Your task to perform on an android device: Do I have any events this weekend? Image 0: 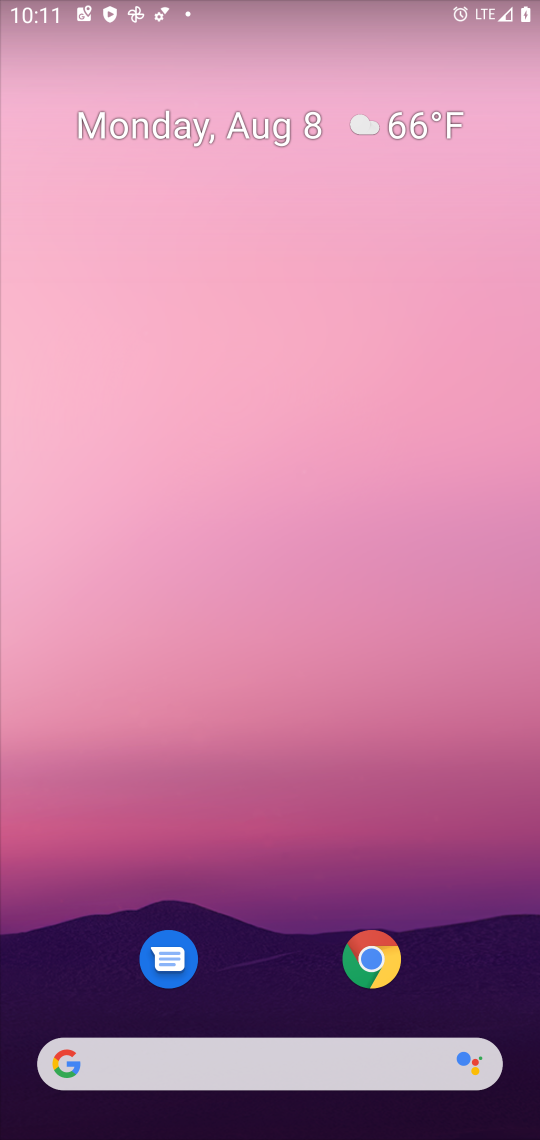
Step 0: drag from (509, 1002) to (279, 61)
Your task to perform on an android device: Do I have any events this weekend? Image 1: 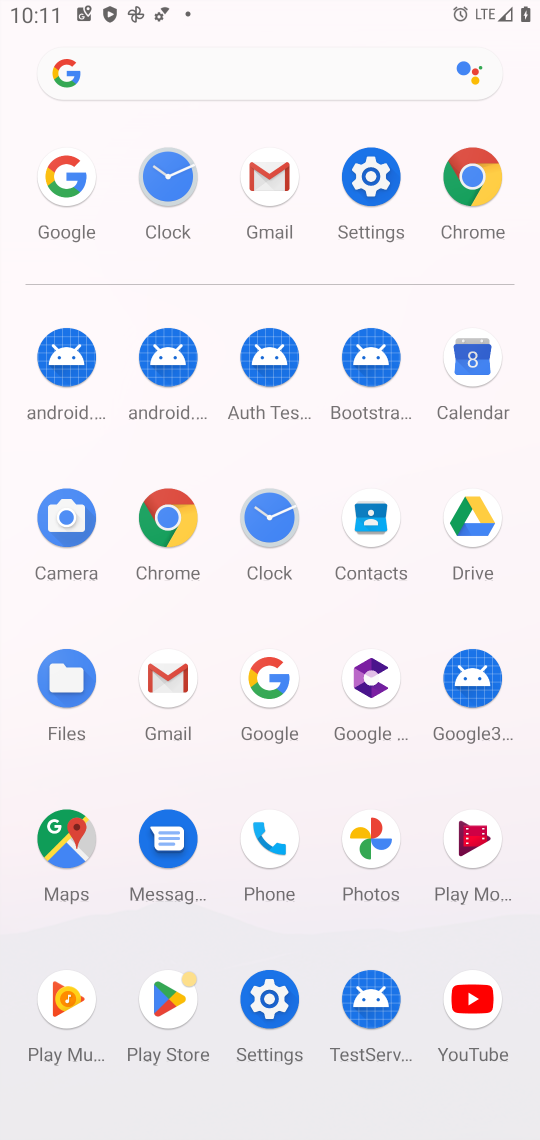
Step 1: click (469, 343)
Your task to perform on an android device: Do I have any events this weekend? Image 2: 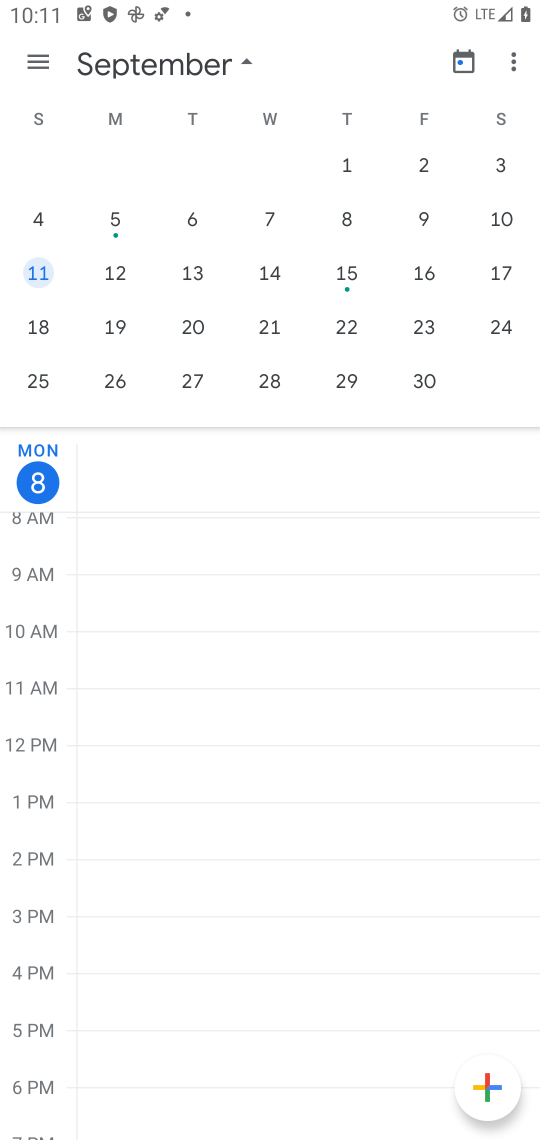
Step 2: task complete